Your task to perform on an android device: toggle wifi Image 0: 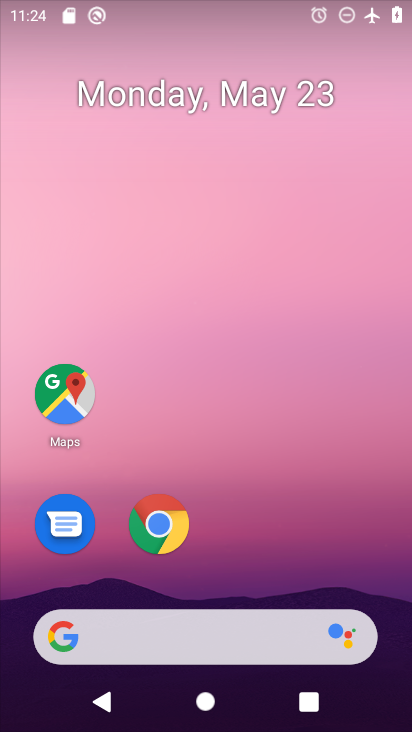
Step 0: drag from (221, 572) to (267, 127)
Your task to perform on an android device: toggle wifi Image 1: 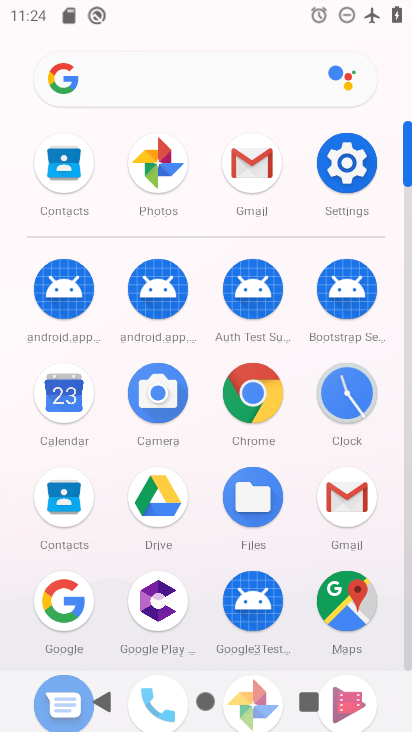
Step 1: click (336, 154)
Your task to perform on an android device: toggle wifi Image 2: 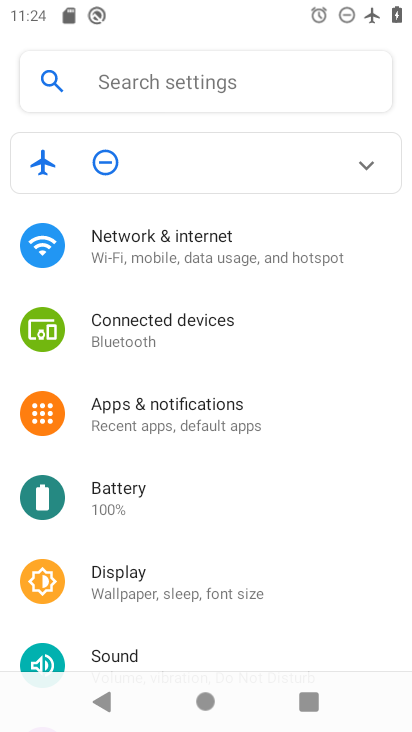
Step 2: click (166, 228)
Your task to perform on an android device: toggle wifi Image 3: 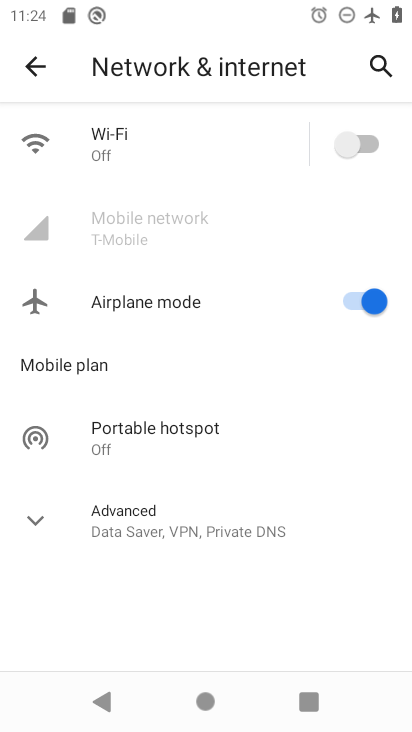
Step 3: click (373, 145)
Your task to perform on an android device: toggle wifi Image 4: 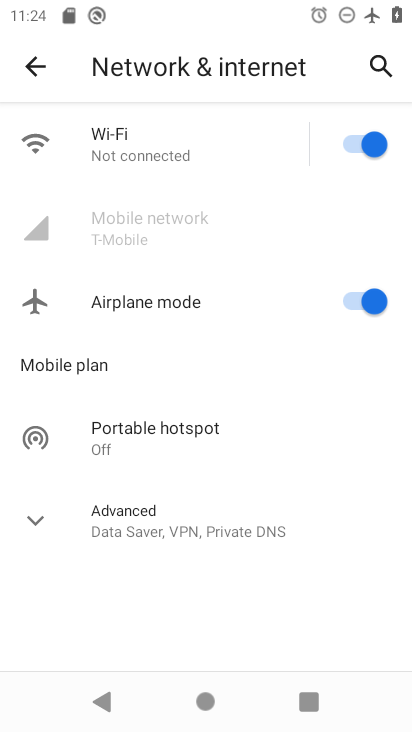
Step 4: task complete